Your task to perform on an android device: check battery use Image 0: 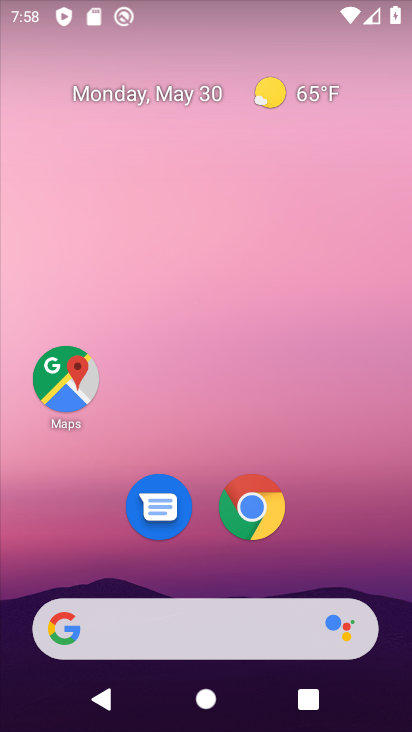
Step 0: drag from (312, 698) to (284, 113)
Your task to perform on an android device: check battery use Image 1: 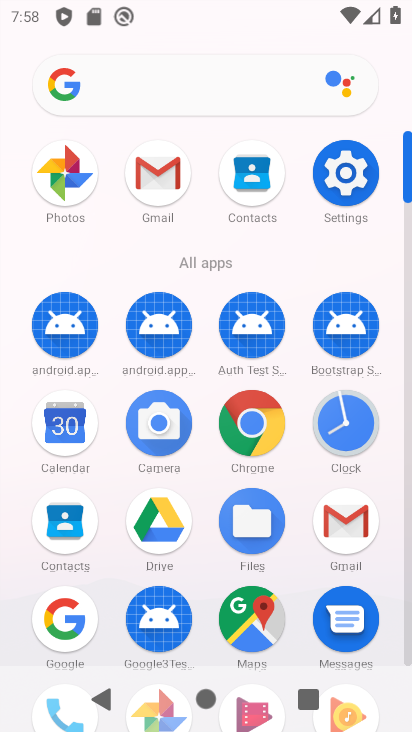
Step 1: click (349, 181)
Your task to perform on an android device: check battery use Image 2: 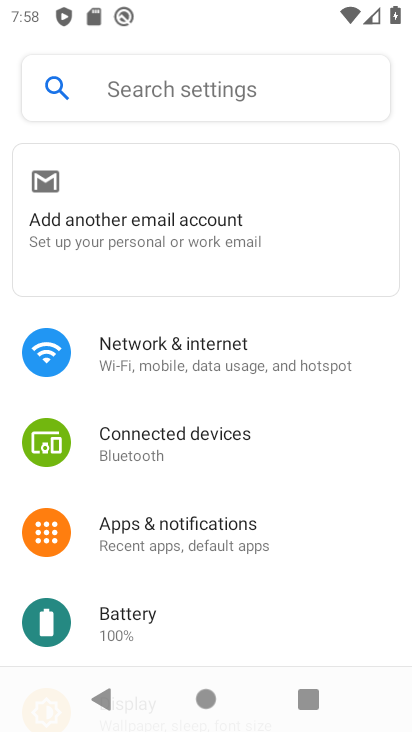
Step 2: drag from (249, 539) to (293, 156)
Your task to perform on an android device: check battery use Image 3: 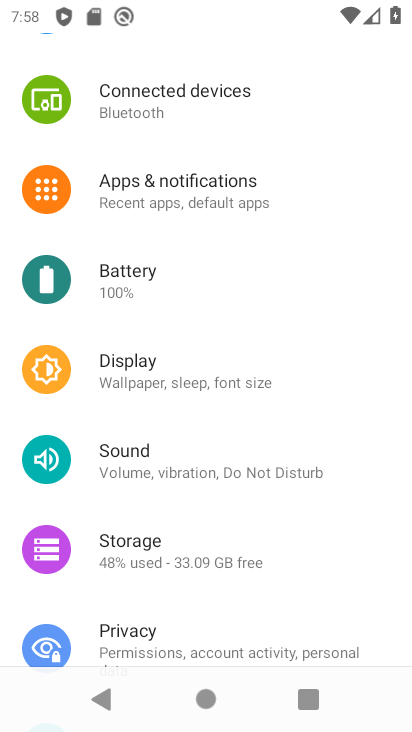
Step 3: click (252, 289)
Your task to perform on an android device: check battery use Image 4: 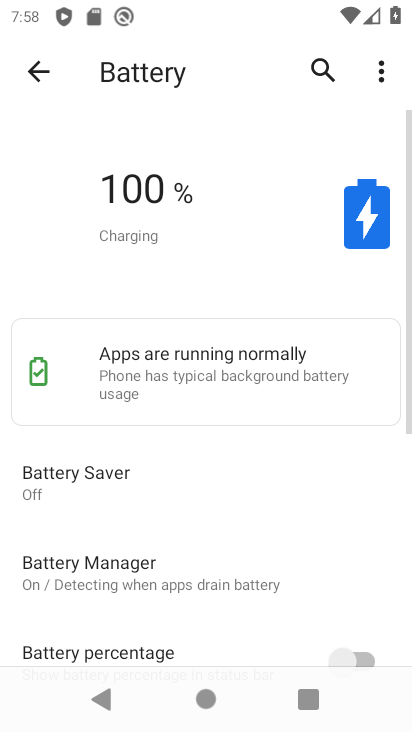
Step 4: click (379, 63)
Your task to perform on an android device: check battery use Image 5: 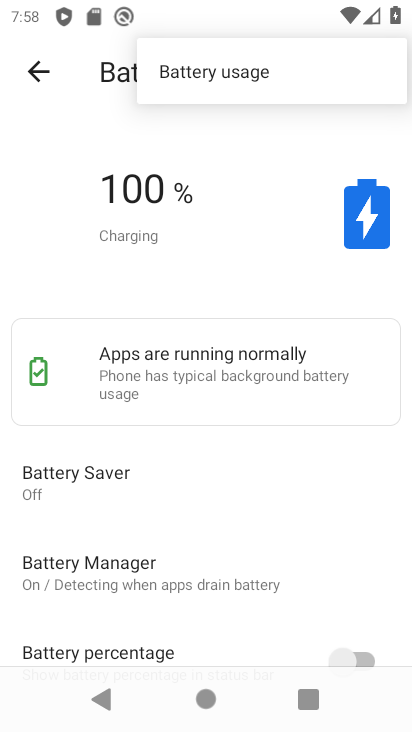
Step 5: click (353, 88)
Your task to perform on an android device: check battery use Image 6: 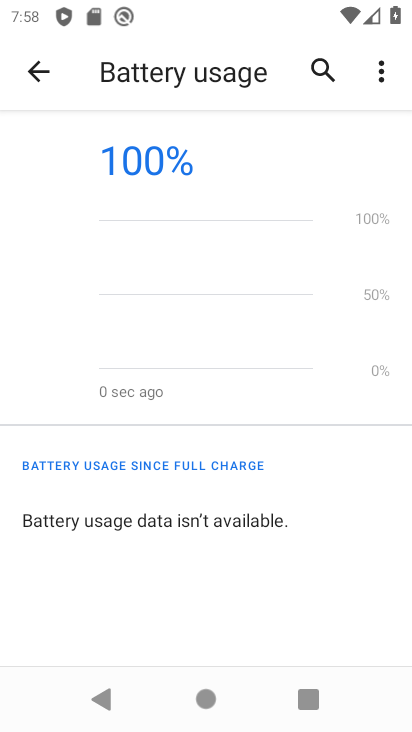
Step 6: task complete